Your task to perform on an android device: turn off translation in the chrome app Image 0: 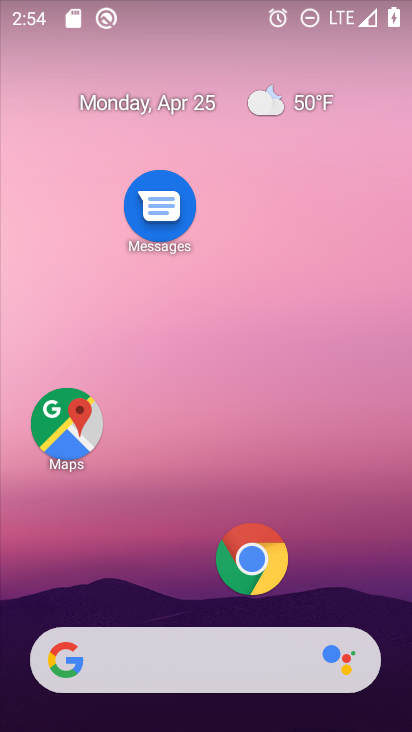
Step 0: click (237, 544)
Your task to perform on an android device: turn off translation in the chrome app Image 1: 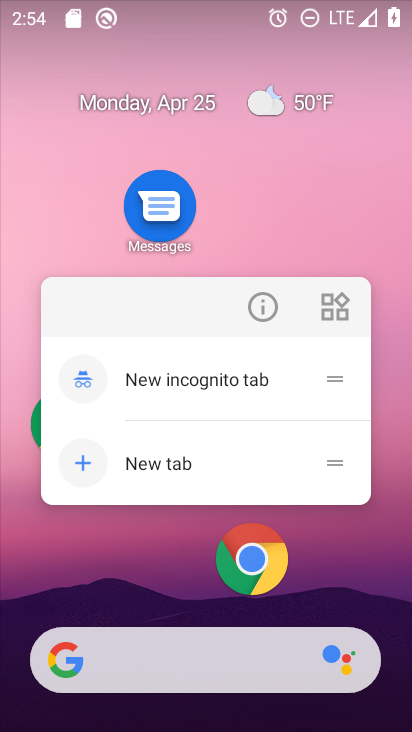
Step 1: click (247, 551)
Your task to perform on an android device: turn off translation in the chrome app Image 2: 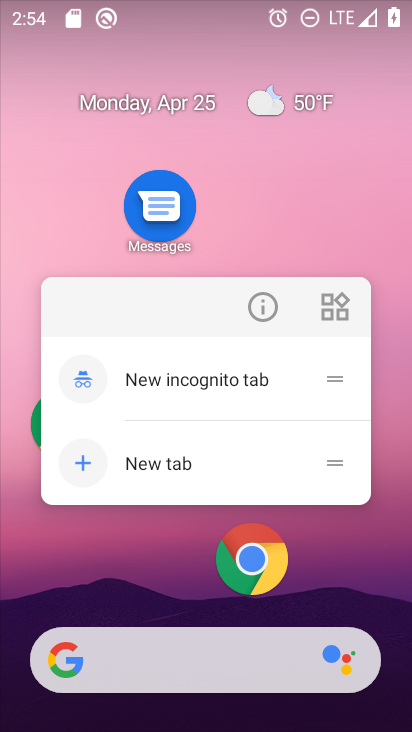
Step 2: click (252, 566)
Your task to perform on an android device: turn off translation in the chrome app Image 3: 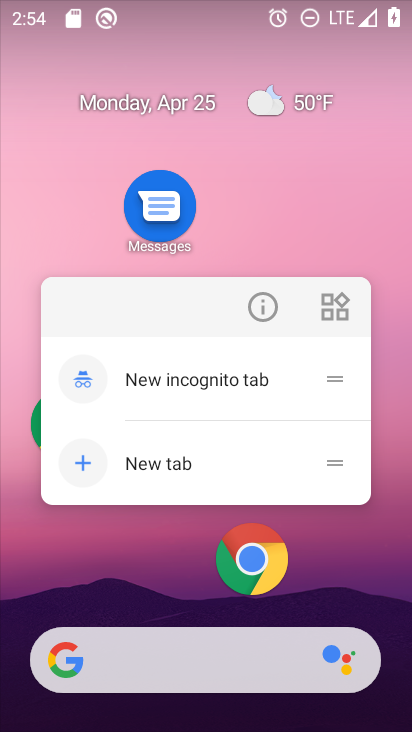
Step 3: click (259, 294)
Your task to perform on an android device: turn off translation in the chrome app Image 4: 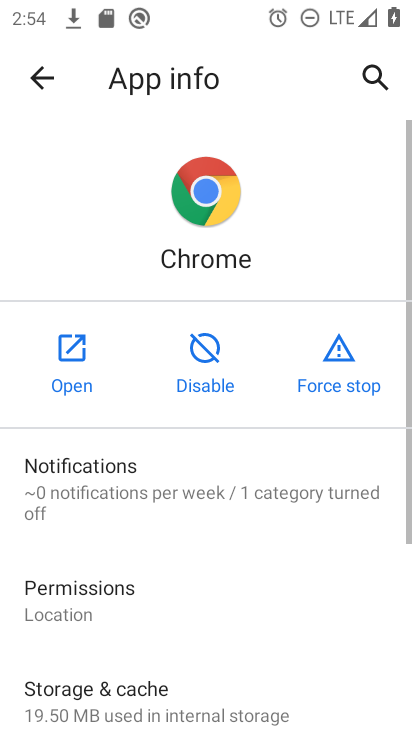
Step 4: click (72, 351)
Your task to perform on an android device: turn off translation in the chrome app Image 5: 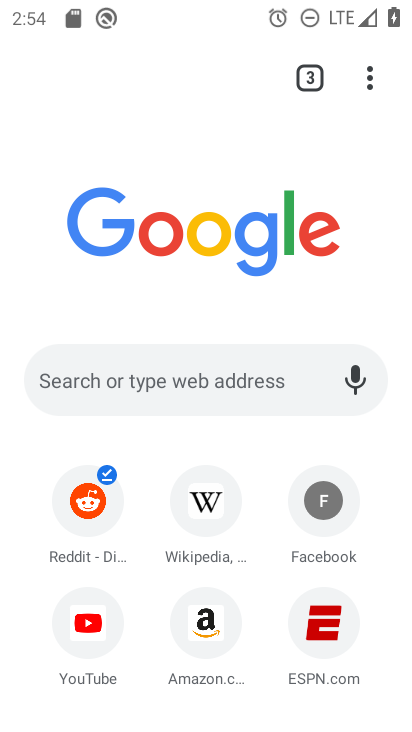
Step 5: click (369, 74)
Your task to perform on an android device: turn off translation in the chrome app Image 6: 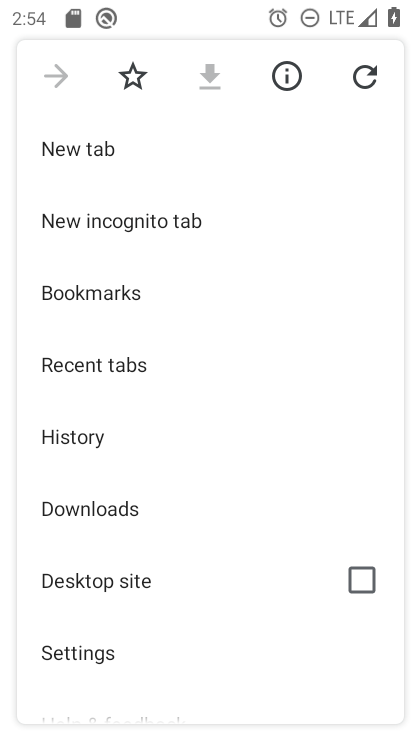
Step 6: click (83, 644)
Your task to perform on an android device: turn off translation in the chrome app Image 7: 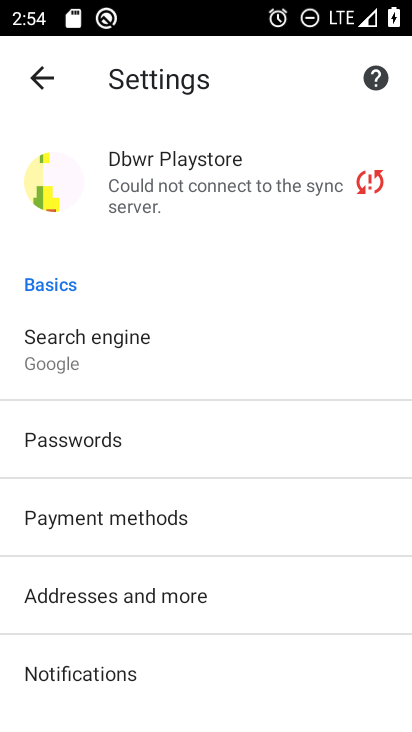
Step 7: drag from (128, 610) to (175, 284)
Your task to perform on an android device: turn off translation in the chrome app Image 8: 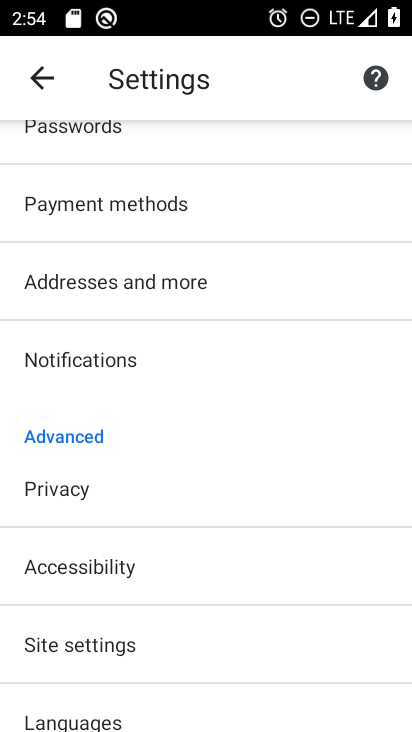
Step 8: drag from (94, 675) to (111, 456)
Your task to perform on an android device: turn off translation in the chrome app Image 9: 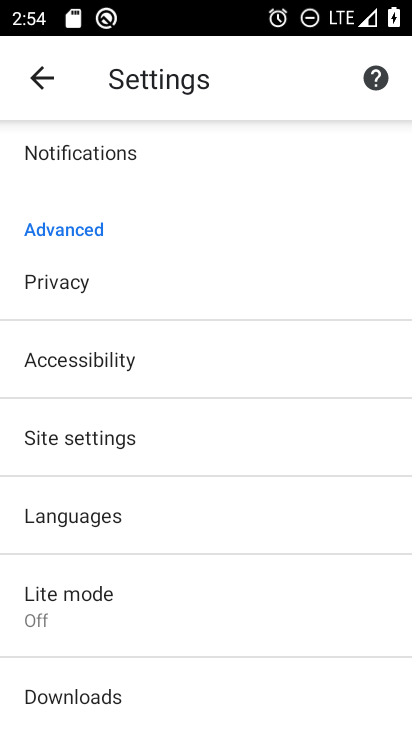
Step 9: click (117, 526)
Your task to perform on an android device: turn off translation in the chrome app Image 10: 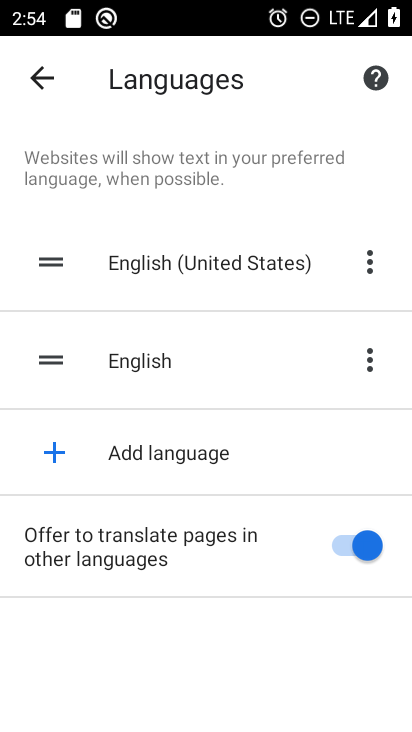
Step 10: click (294, 535)
Your task to perform on an android device: turn off translation in the chrome app Image 11: 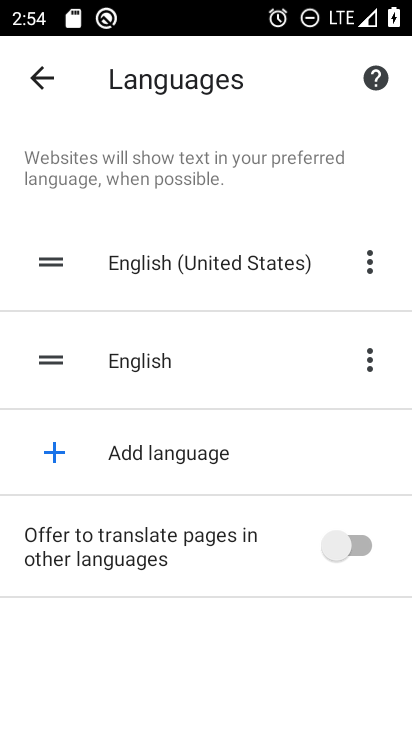
Step 11: task complete